Your task to perform on an android device: move an email to a new category in the gmail app Image 0: 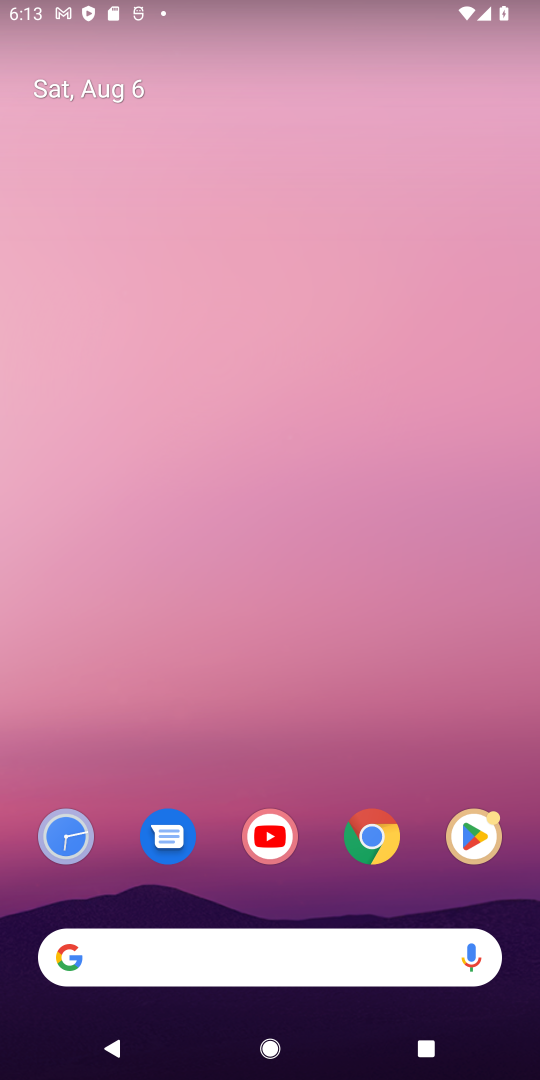
Step 0: drag from (348, 876) to (219, 120)
Your task to perform on an android device: move an email to a new category in the gmail app Image 1: 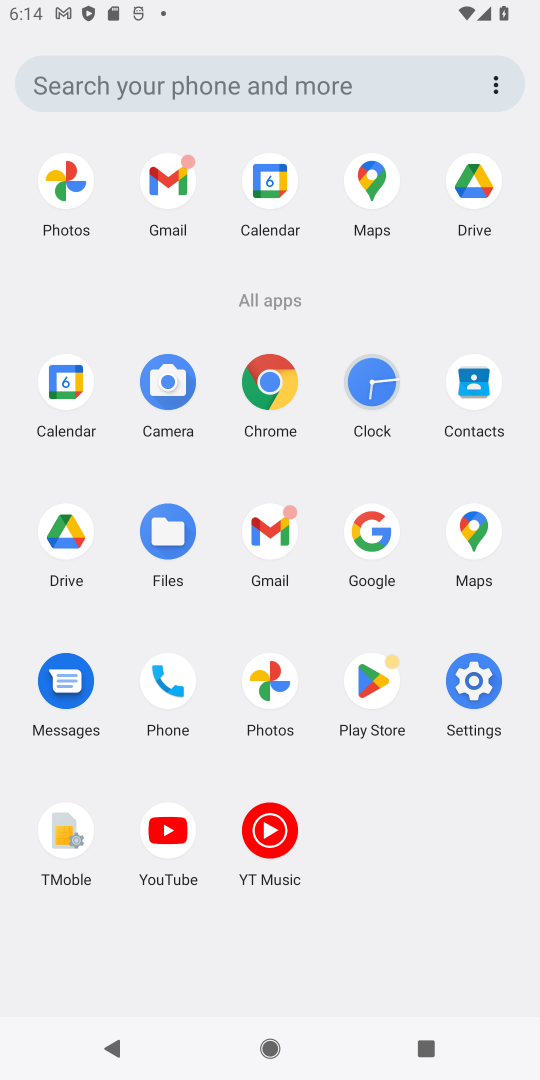
Step 1: click (274, 546)
Your task to perform on an android device: move an email to a new category in the gmail app Image 2: 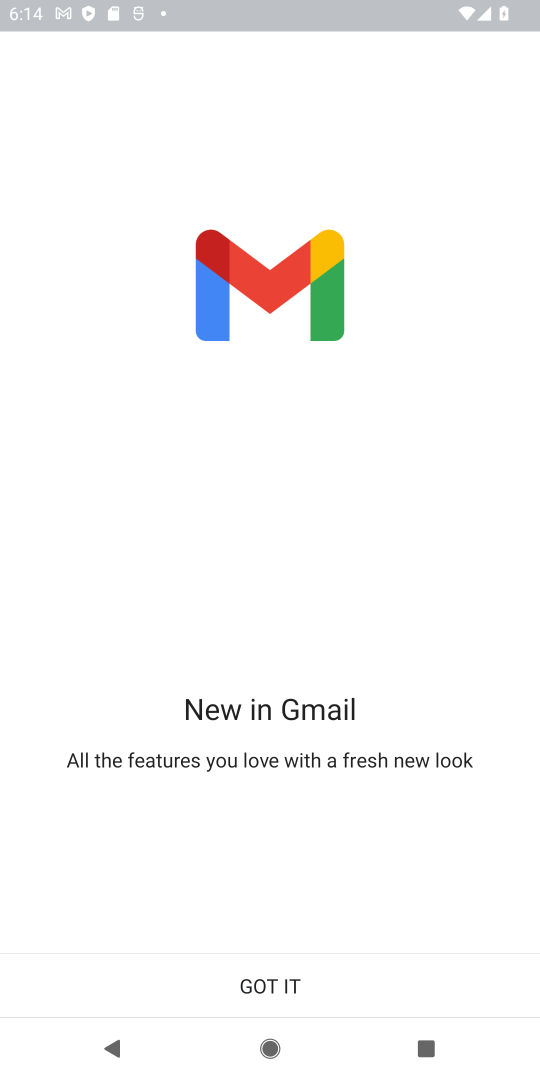
Step 2: click (315, 1004)
Your task to perform on an android device: move an email to a new category in the gmail app Image 3: 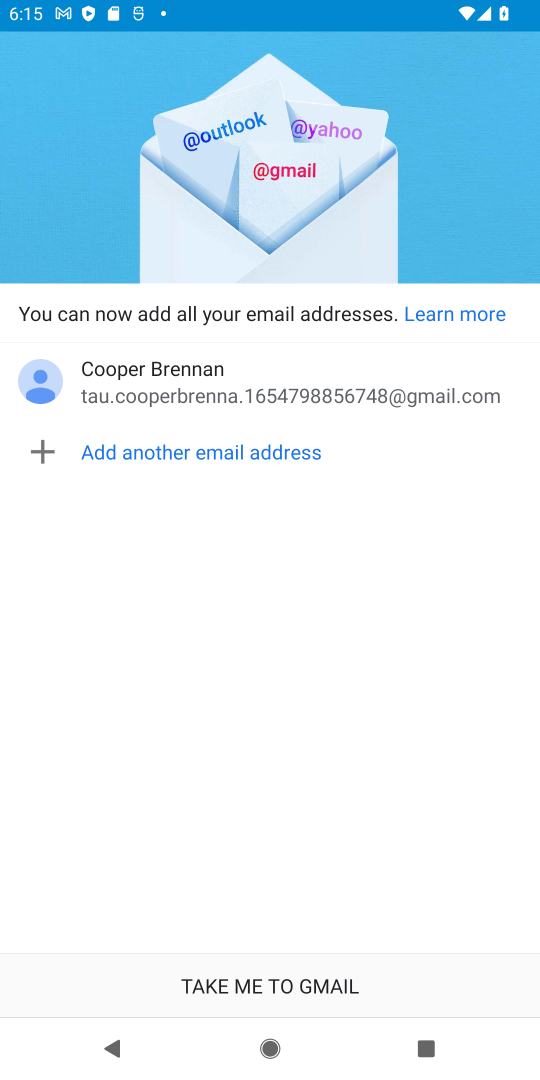
Step 3: click (283, 979)
Your task to perform on an android device: move an email to a new category in the gmail app Image 4: 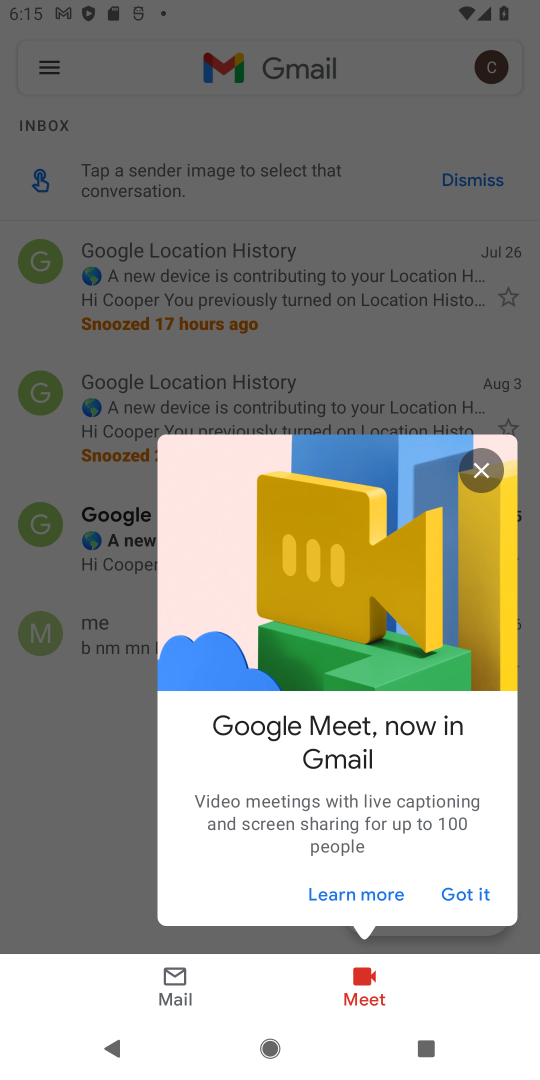
Step 4: task complete